Your task to perform on an android device: Go to notification settings Image 0: 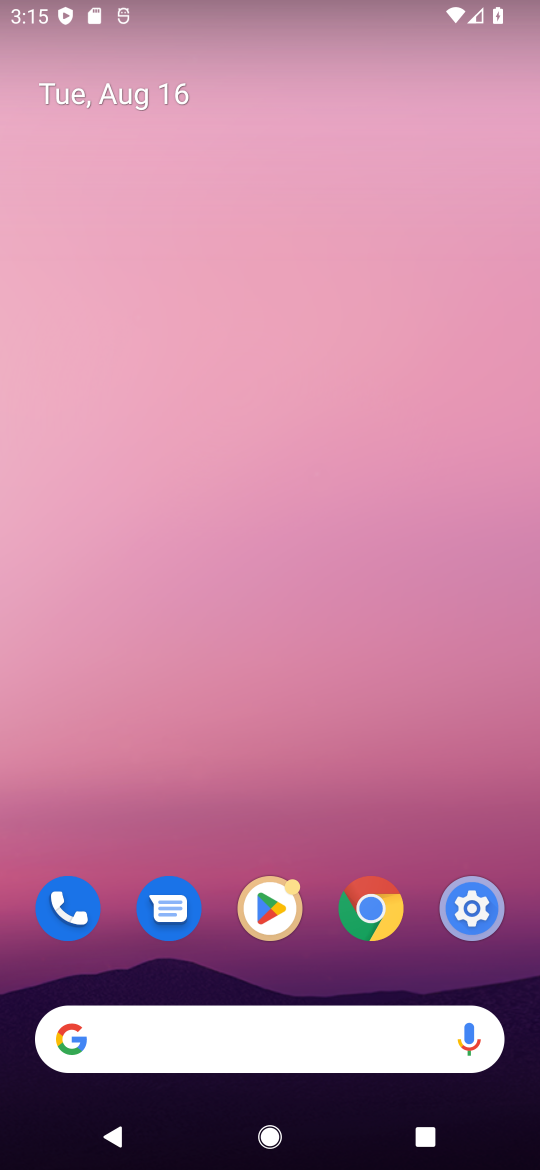
Step 0: press home button
Your task to perform on an android device: Go to notification settings Image 1: 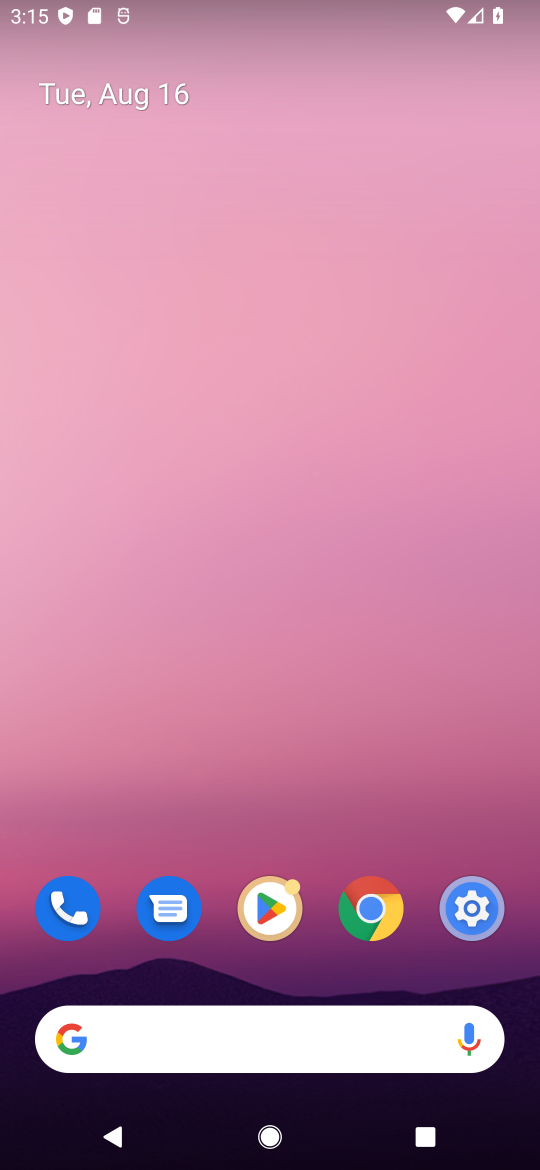
Step 1: drag from (317, 877) to (322, 32)
Your task to perform on an android device: Go to notification settings Image 2: 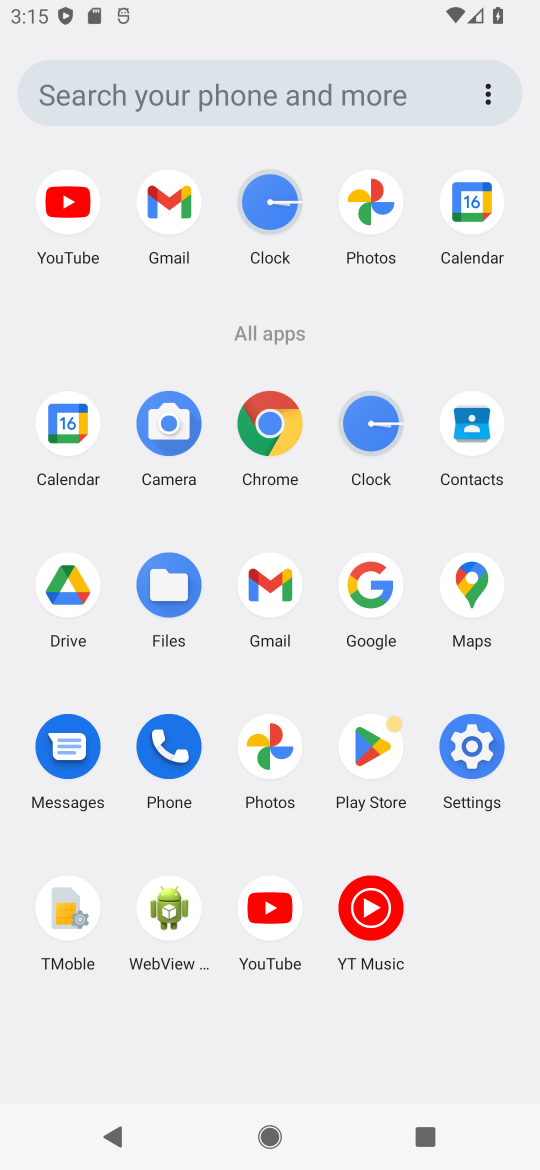
Step 2: click (471, 740)
Your task to perform on an android device: Go to notification settings Image 3: 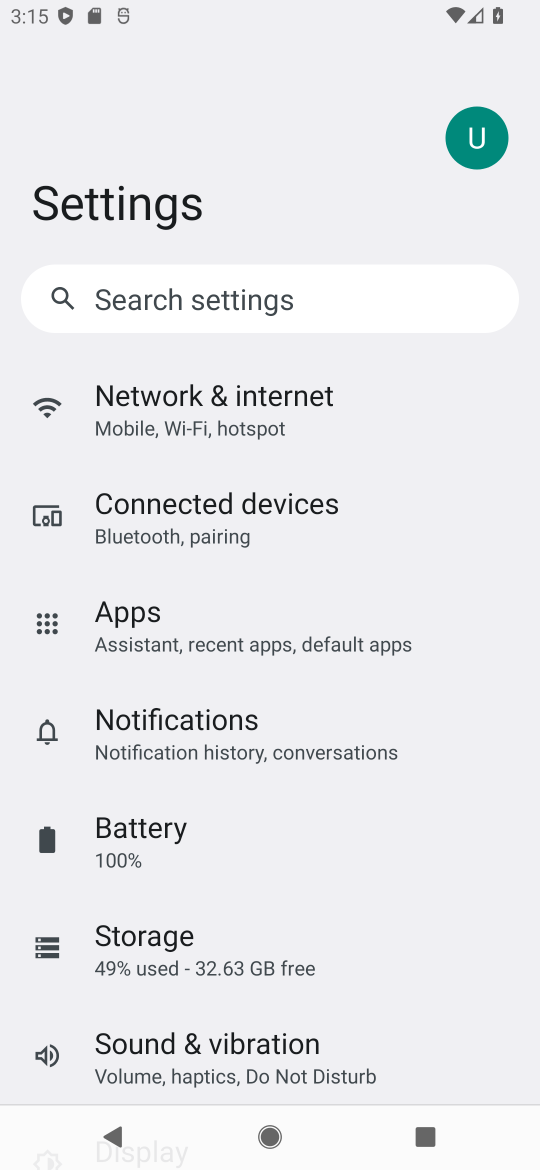
Step 3: click (275, 724)
Your task to perform on an android device: Go to notification settings Image 4: 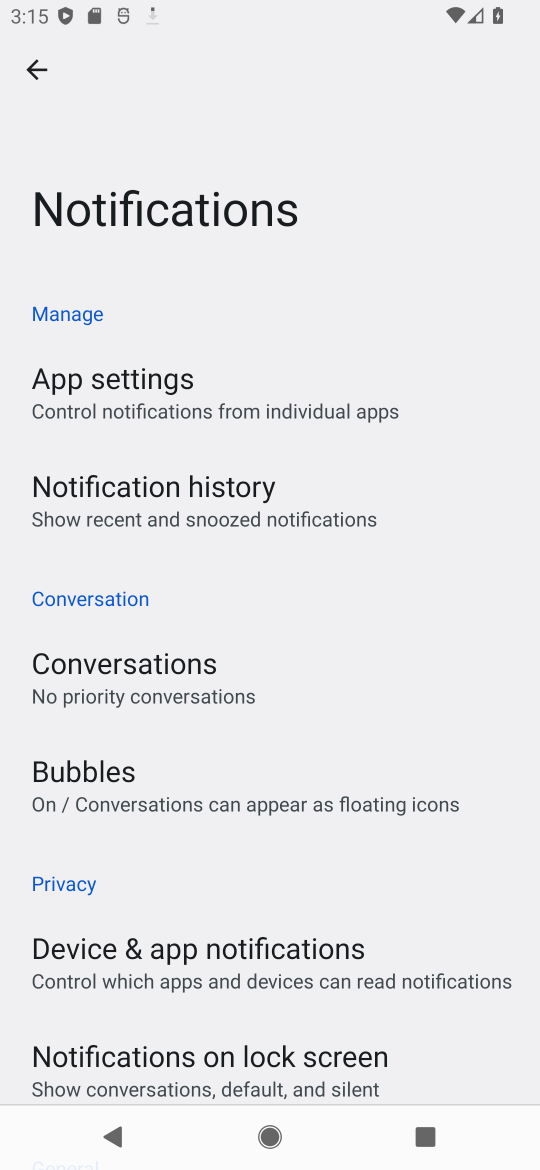
Step 4: task complete